Your task to perform on an android device: Go to Reddit.com Image 0: 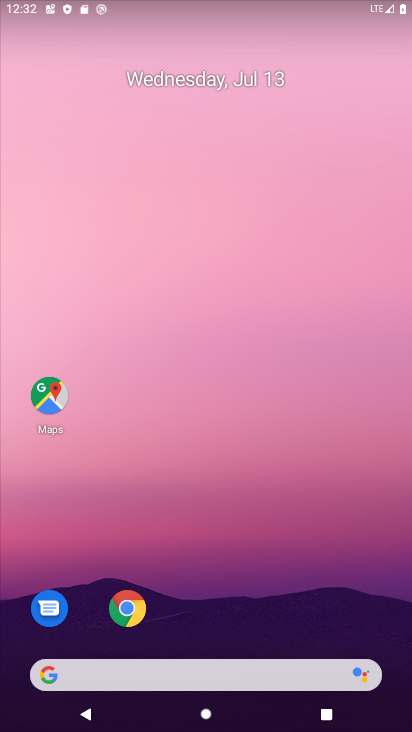
Step 0: click (139, 603)
Your task to perform on an android device: Go to Reddit.com Image 1: 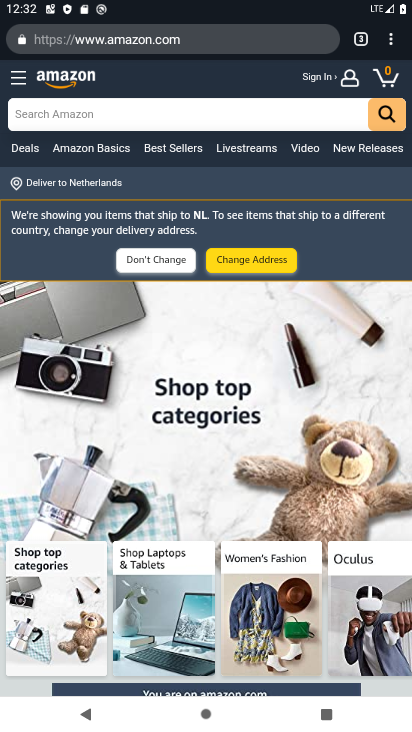
Step 1: click (364, 41)
Your task to perform on an android device: Go to Reddit.com Image 2: 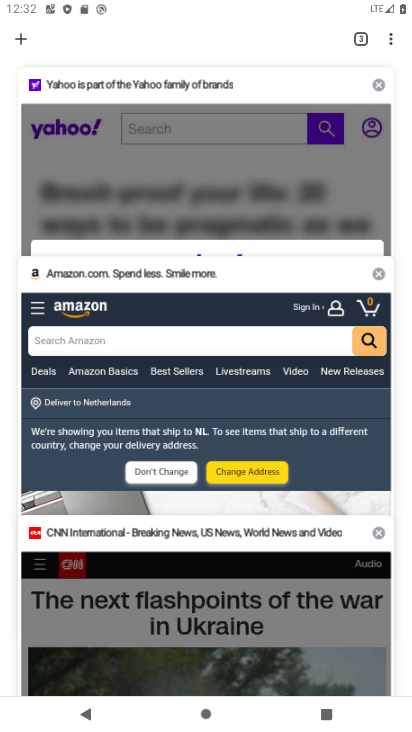
Step 2: click (21, 33)
Your task to perform on an android device: Go to Reddit.com Image 3: 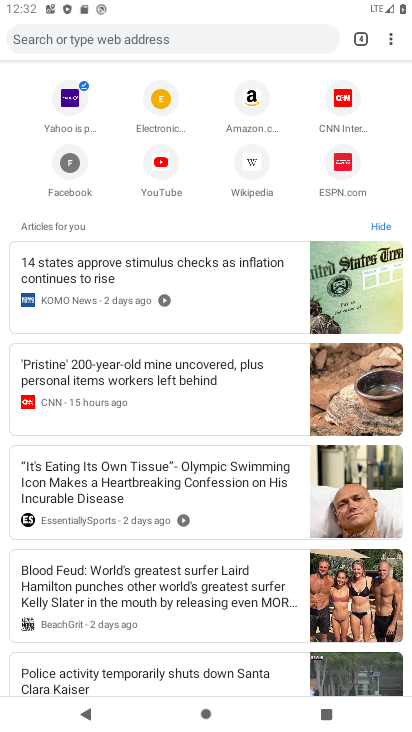
Step 3: click (104, 40)
Your task to perform on an android device: Go to Reddit.com Image 4: 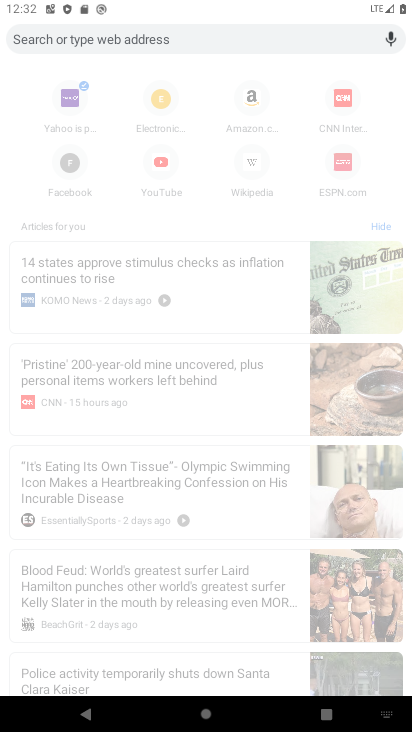
Step 4: type "reddit"
Your task to perform on an android device: Go to Reddit.com Image 5: 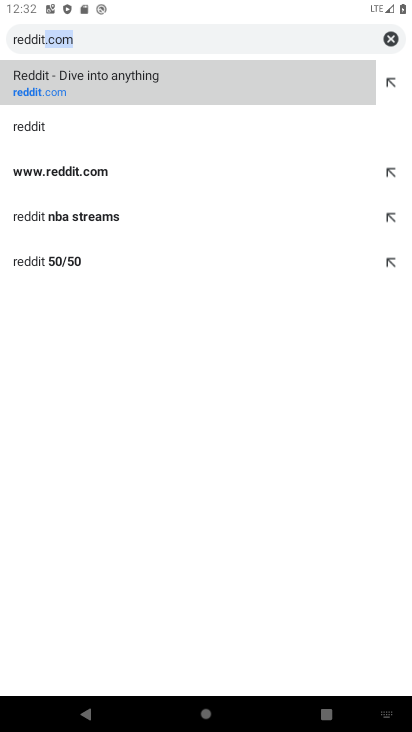
Step 5: click (164, 95)
Your task to perform on an android device: Go to Reddit.com Image 6: 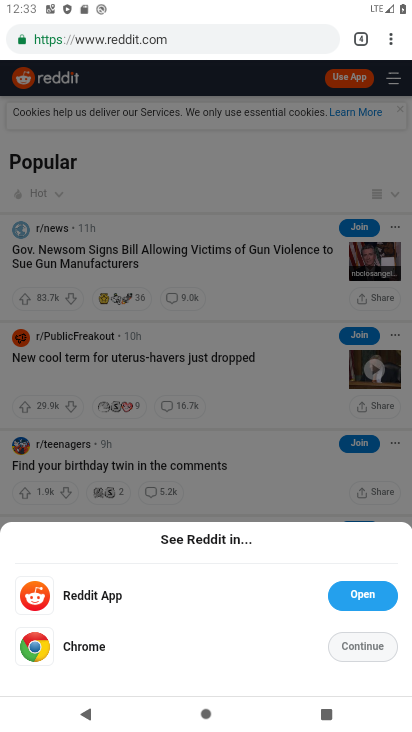
Step 6: task complete